Your task to perform on an android device: turn on notifications settings in the gmail app Image 0: 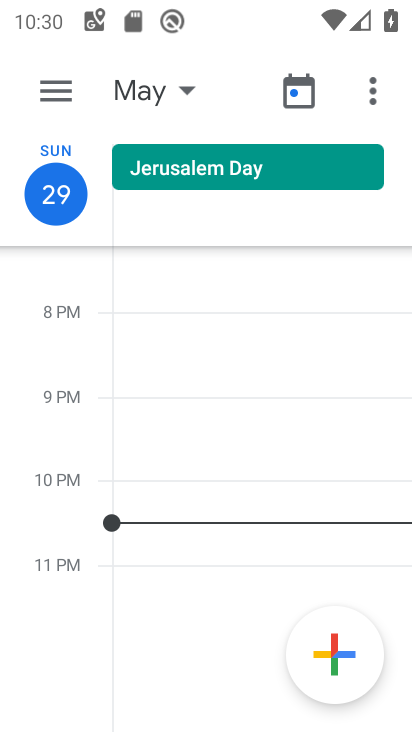
Step 0: press home button
Your task to perform on an android device: turn on notifications settings in the gmail app Image 1: 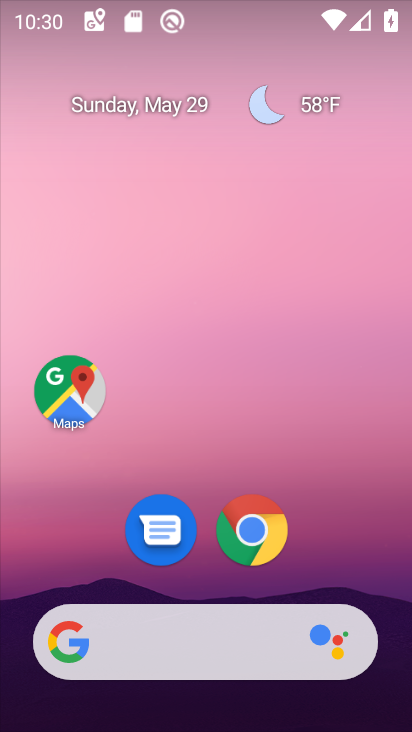
Step 1: drag from (224, 616) to (236, 184)
Your task to perform on an android device: turn on notifications settings in the gmail app Image 2: 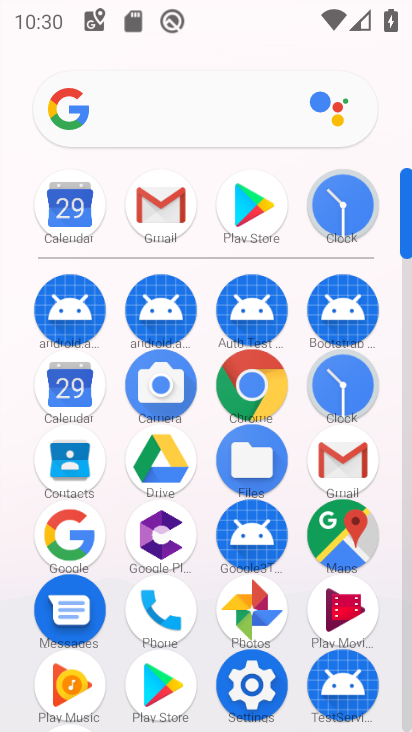
Step 2: click (326, 475)
Your task to perform on an android device: turn on notifications settings in the gmail app Image 3: 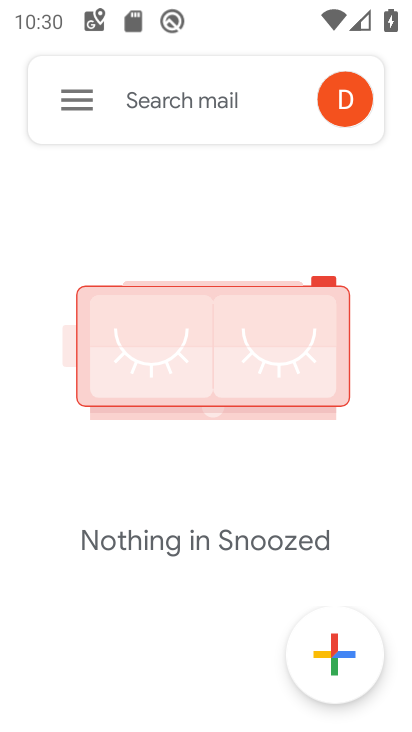
Step 3: click (70, 86)
Your task to perform on an android device: turn on notifications settings in the gmail app Image 4: 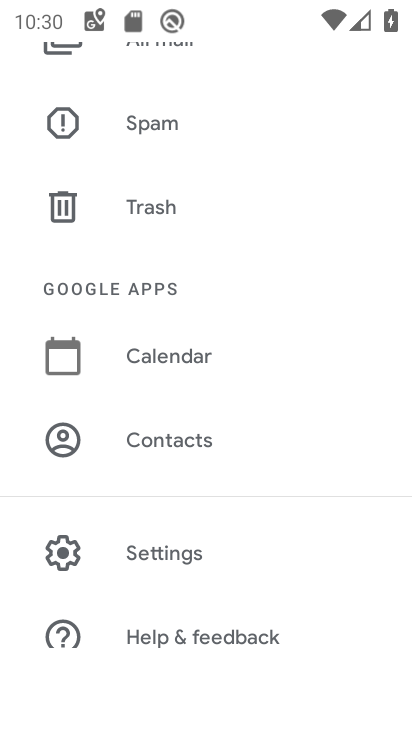
Step 4: click (172, 544)
Your task to perform on an android device: turn on notifications settings in the gmail app Image 5: 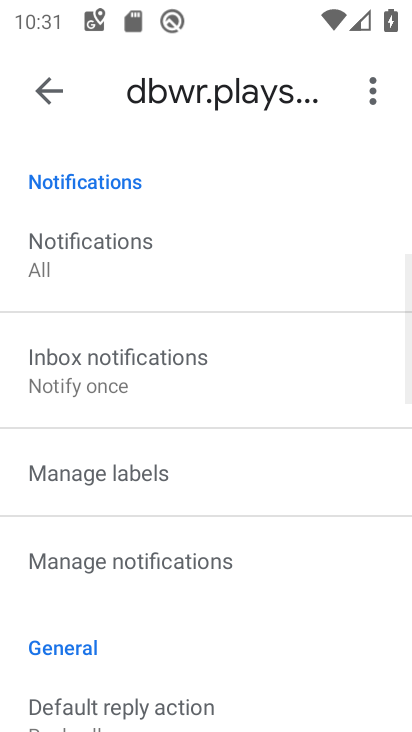
Step 5: click (178, 562)
Your task to perform on an android device: turn on notifications settings in the gmail app Image 6: 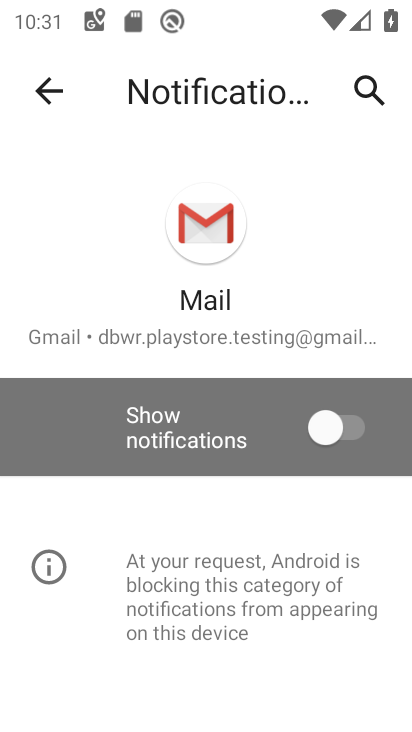
Step 6: click (310, 437)
Your task to perform on an android device: turn on notifications settings in the gmail app Image 7: 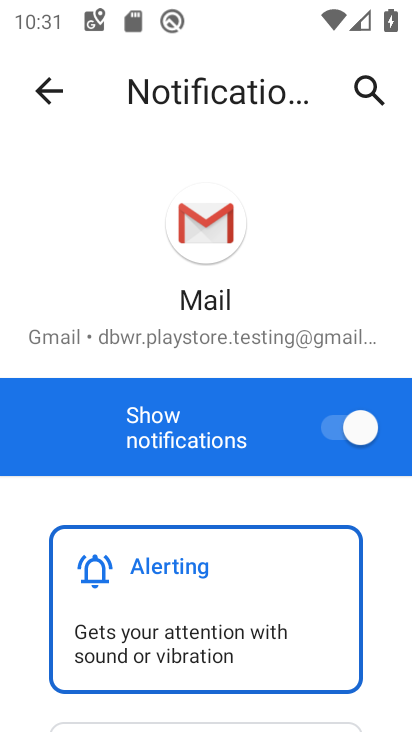
Step 7: task complete